Your task to perform on an android device: Open sound settings Image 0: 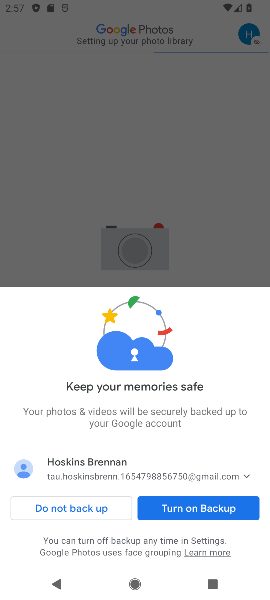
Step 0: press back button
Your task to perform on an android device: Open sound settings Image 1: 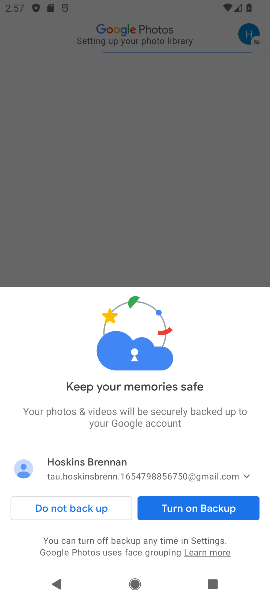
Step 1: press home button
Your task to perform on an android device: Open sound settings Image 2: 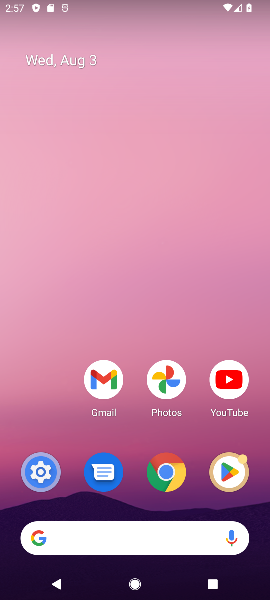
Step 2: click (36, 474)
Your task to perform on an android device: Open sound settings Image 3: 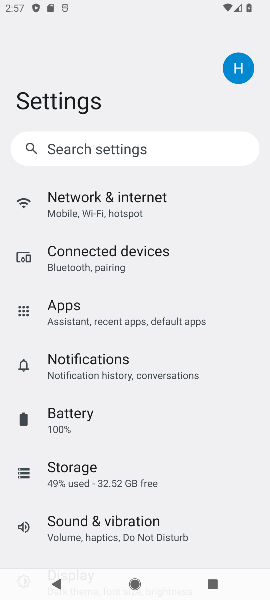
Step 3: drag from (106, 509) to (151, 187)
Your task to perform on an android device: Open sound settings Image 4: 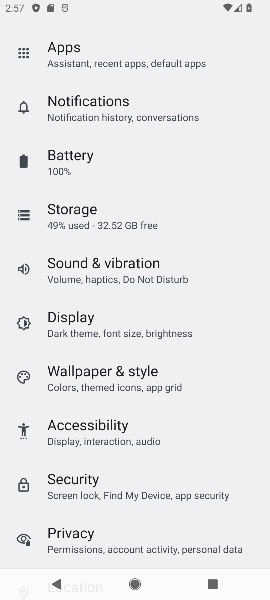
Step 4: click (90, 275)
Your task to perform on an android device: Open sound settings Image 5: 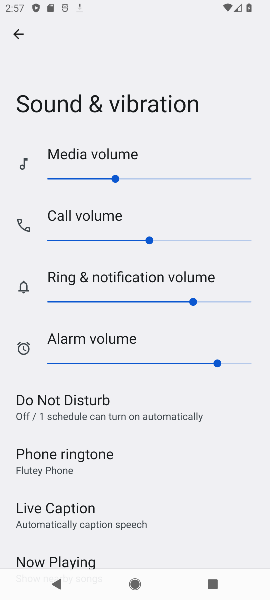
Step 5: task complete